Your task to perform on an android device: turn smart compose on in the gmail app Image 0: 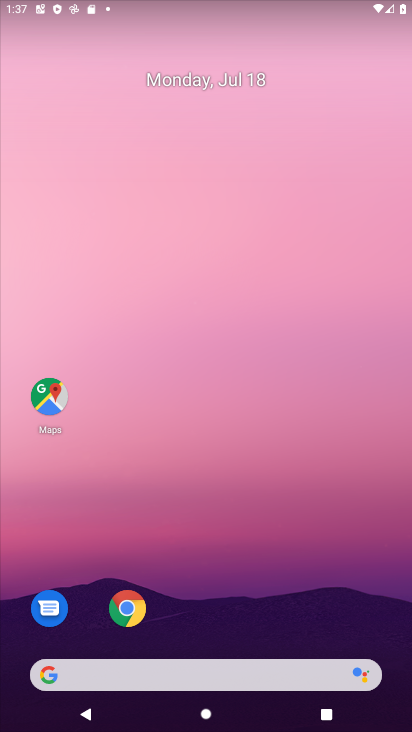
Step 0: drag from (376, 639) to (226, 96)
Your task to perform on an android device: turn smart compose on in the gmail app Image 1: 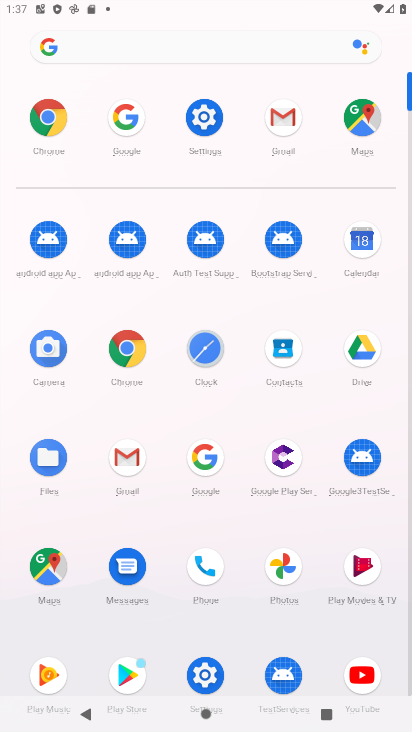
Step 1: click (140, 460)
Your task to perform on an android device: turn smart compose on in the gmail app Image 2: 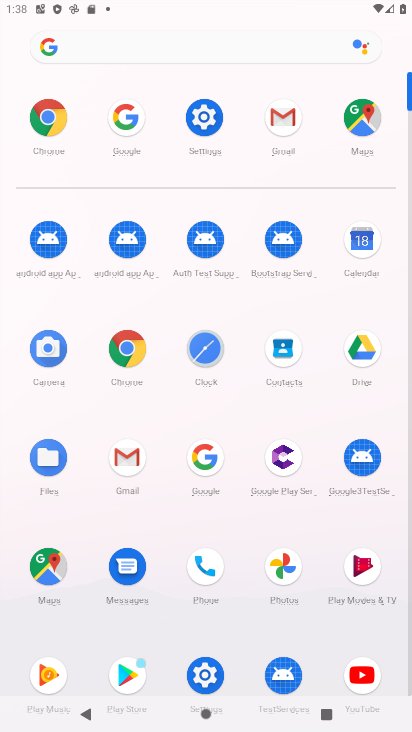
Step 2: click (139, 460)
Your task to perform on an android device: turn smart compose on in the gmail app Image 3: 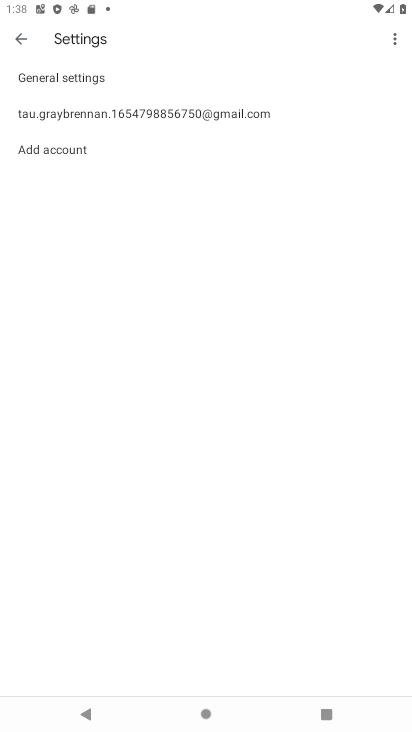
Step 3: click (147, 110)
Your task to perform on an android device: turn smart compose on in the gmail app Image 4: 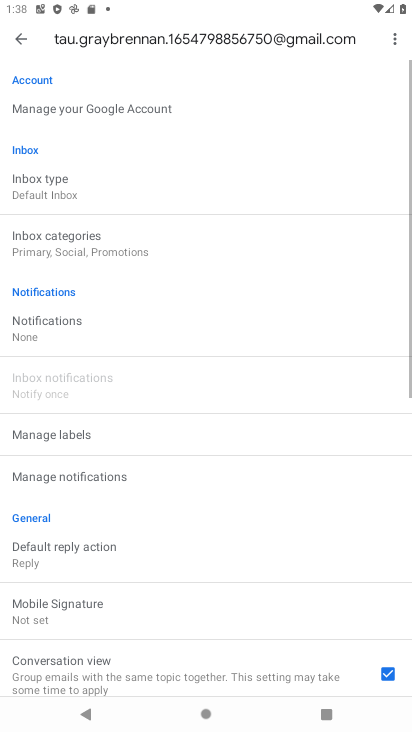
Step 4: task complete